Your task to perform on an android device: open app "Etsy: Buy & Sell Unique Items" (install if not already installed) Image 0: 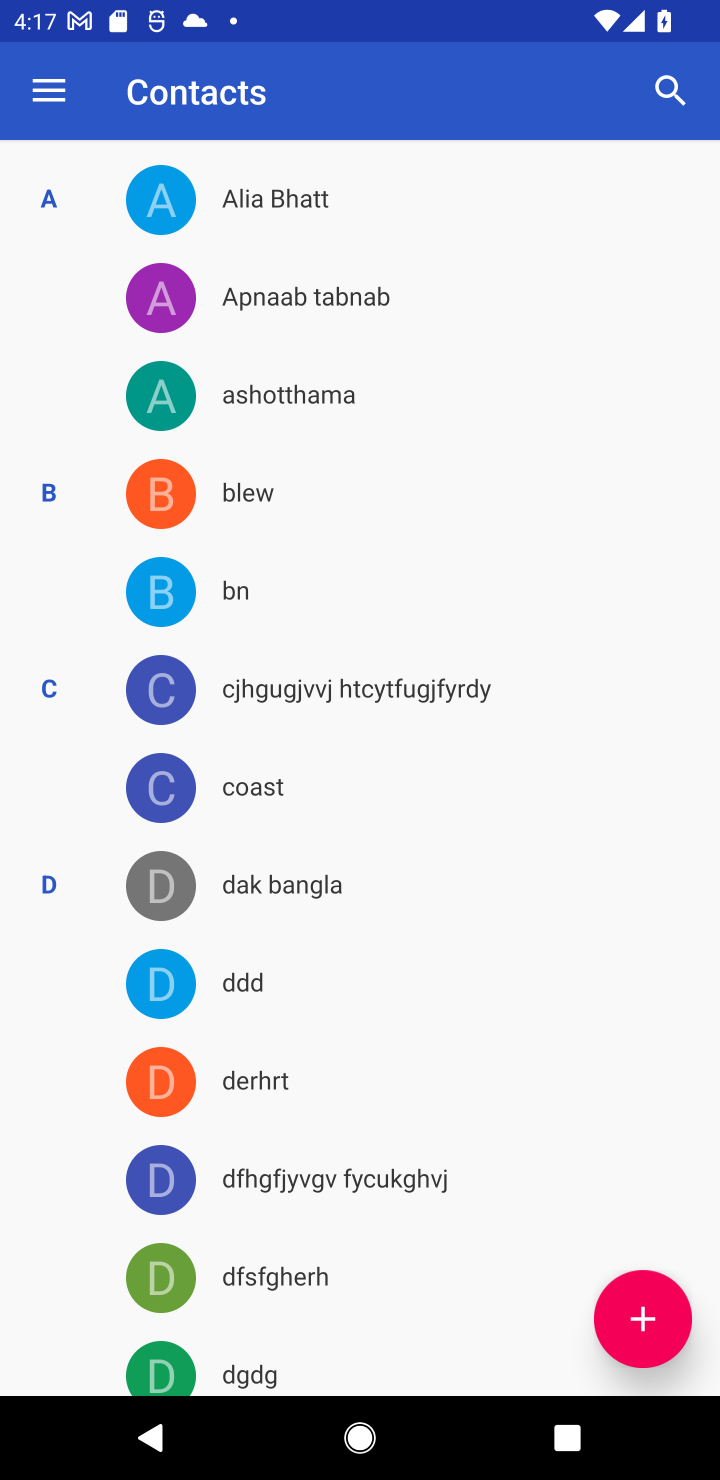
Step 0: press home button
Your task to perform on an android device: open app "Etsy: Buy & Sell Unique Items" (install if not already installed) Image 1: 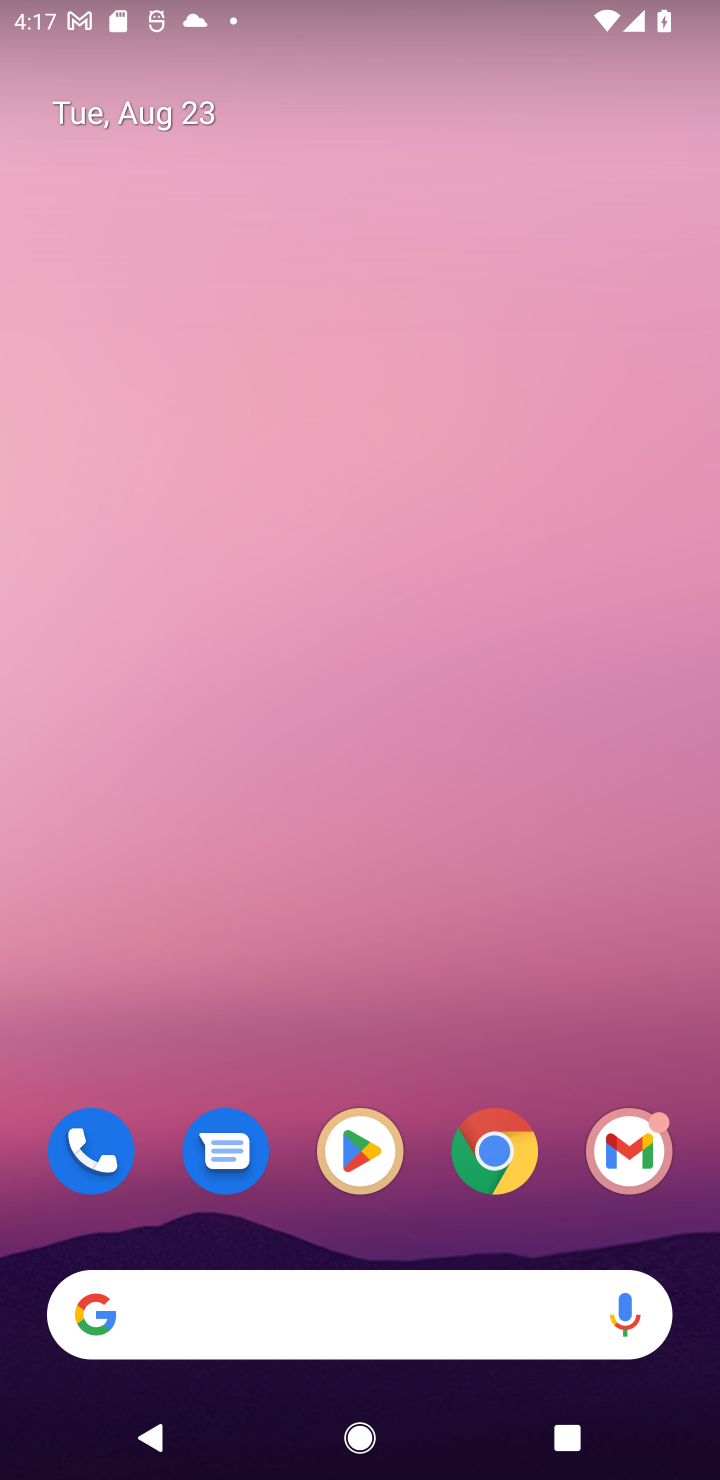
Step 1: click (348, 1157)
Your task to perform on an android device: open app "Etsy: Buy & Sell Unique Items" (install if not already installed) Image 2: 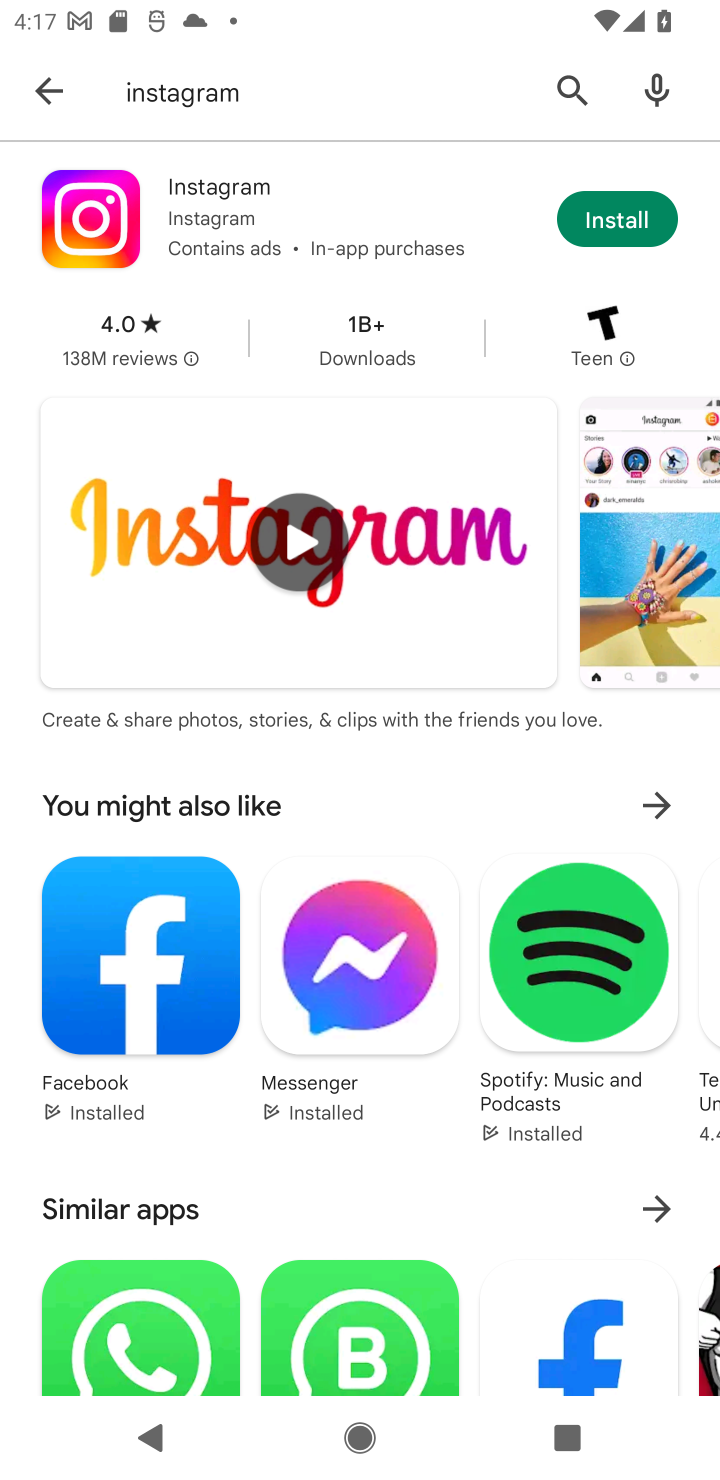
Step 2: click (561, 82)
Your task to perform on an android device: open app "Etsy: Buy & Sell Unique Items" (install if not already installed) Image 3: 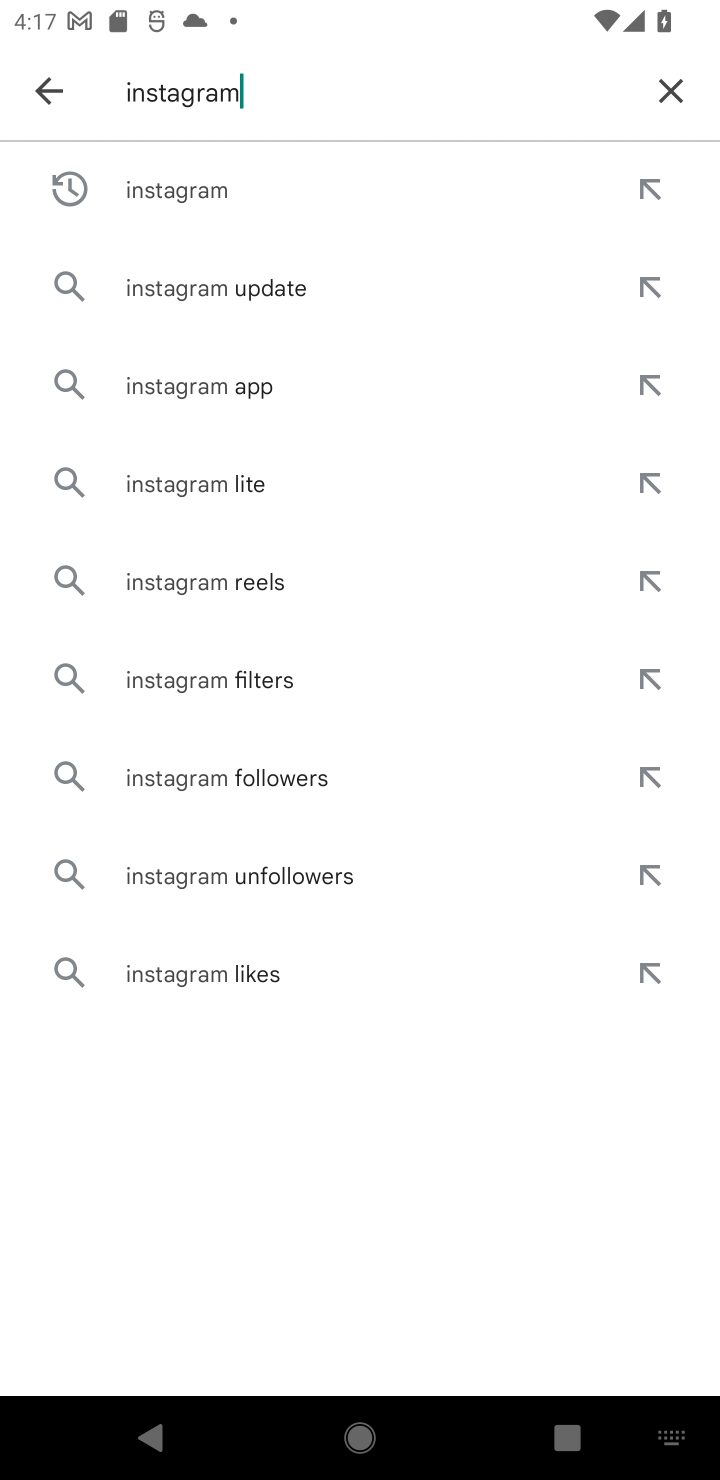
Step 3: click (668, 89)
Your task to perform on an android device: open app "Etsy: Buy & Sell Unique Items" (install if not already installed) Image 4: 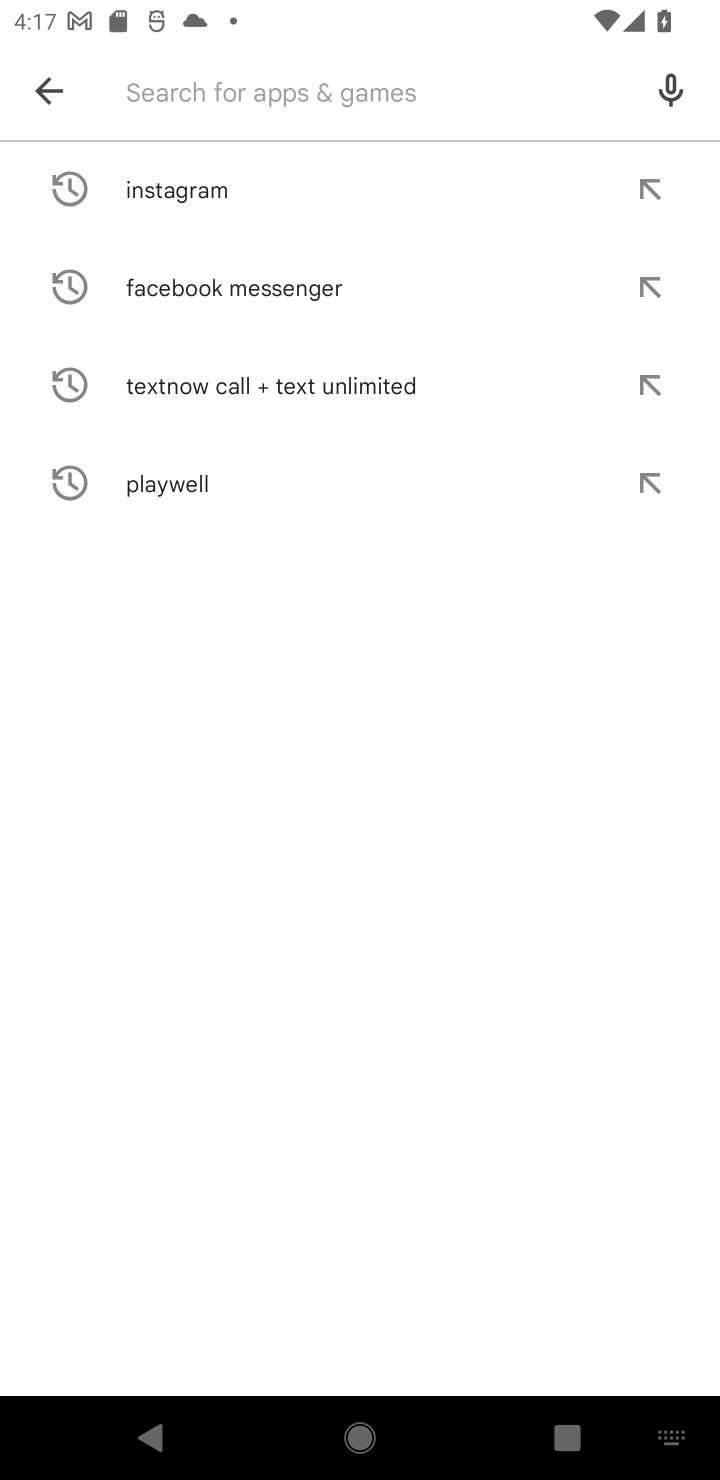
Step 4: type "Etsy: Buy & Sell Unique Items"
Your task to perform on an android device: open app "Etsy: Buy & Sell Unique Items" (install if not already installed) Image 5: 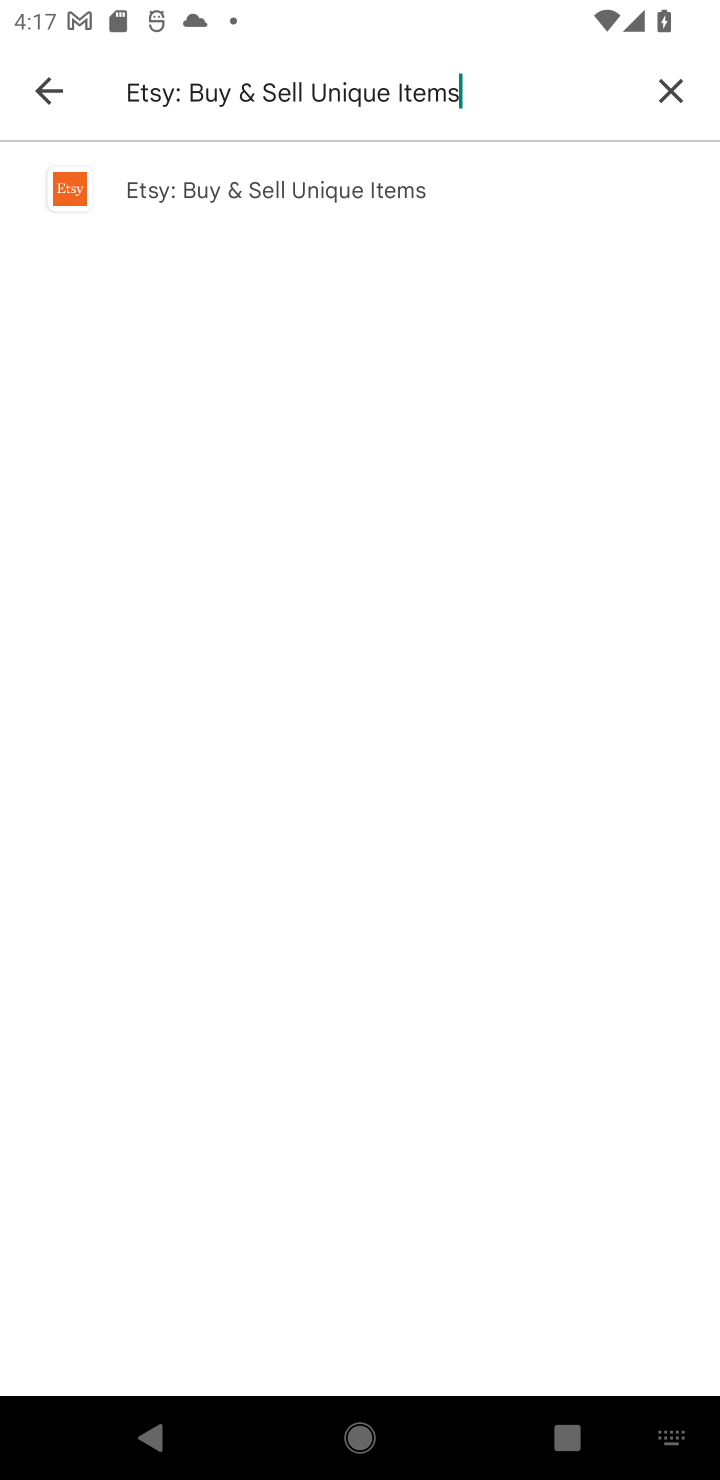
Step 5: click (378, 196)
Your task to perform on an android device: open app "Etsy: Buy & Sell Unique Items" (install if not already installed) Image 6: 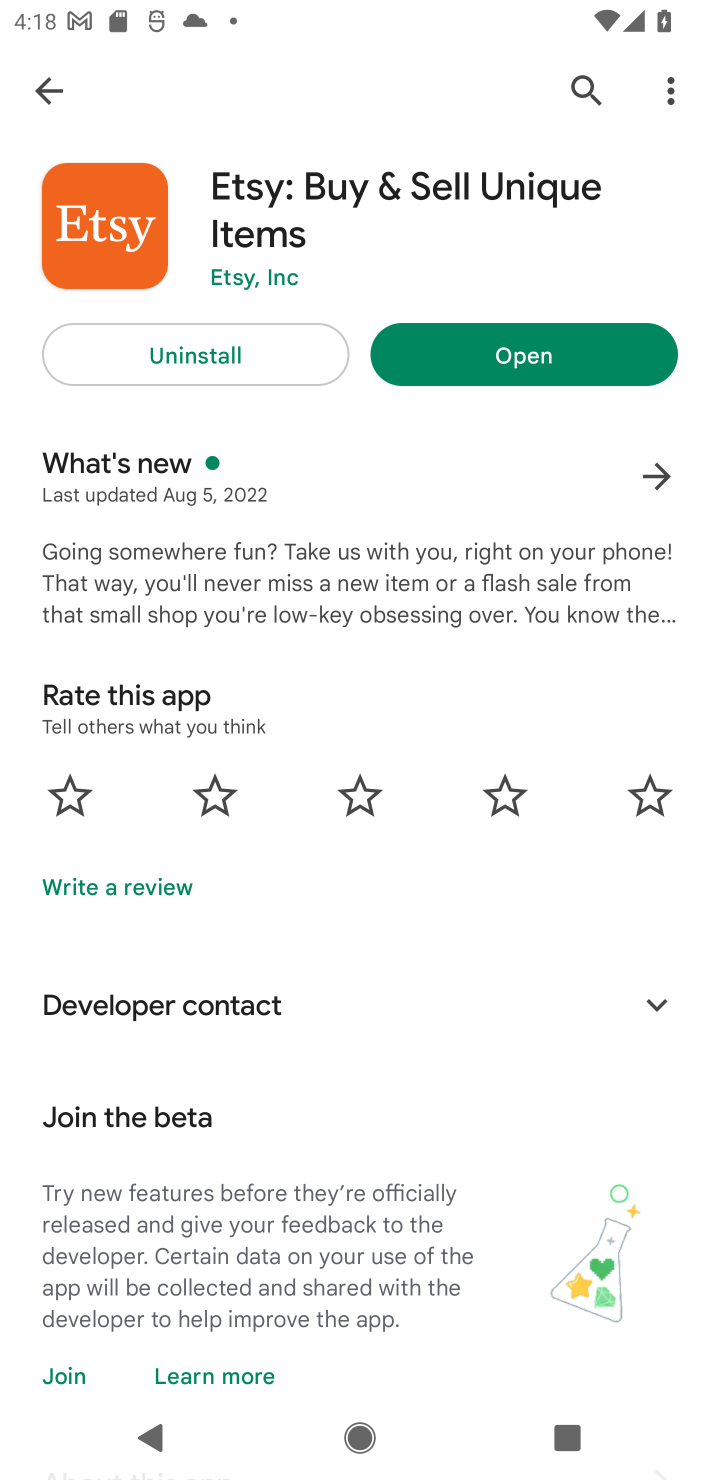
Step 6: click (495, 354)
Your task to perform on an android device: open app "Etsy: Buy & Sell Unique Items" (install if not already installed) Image 7: 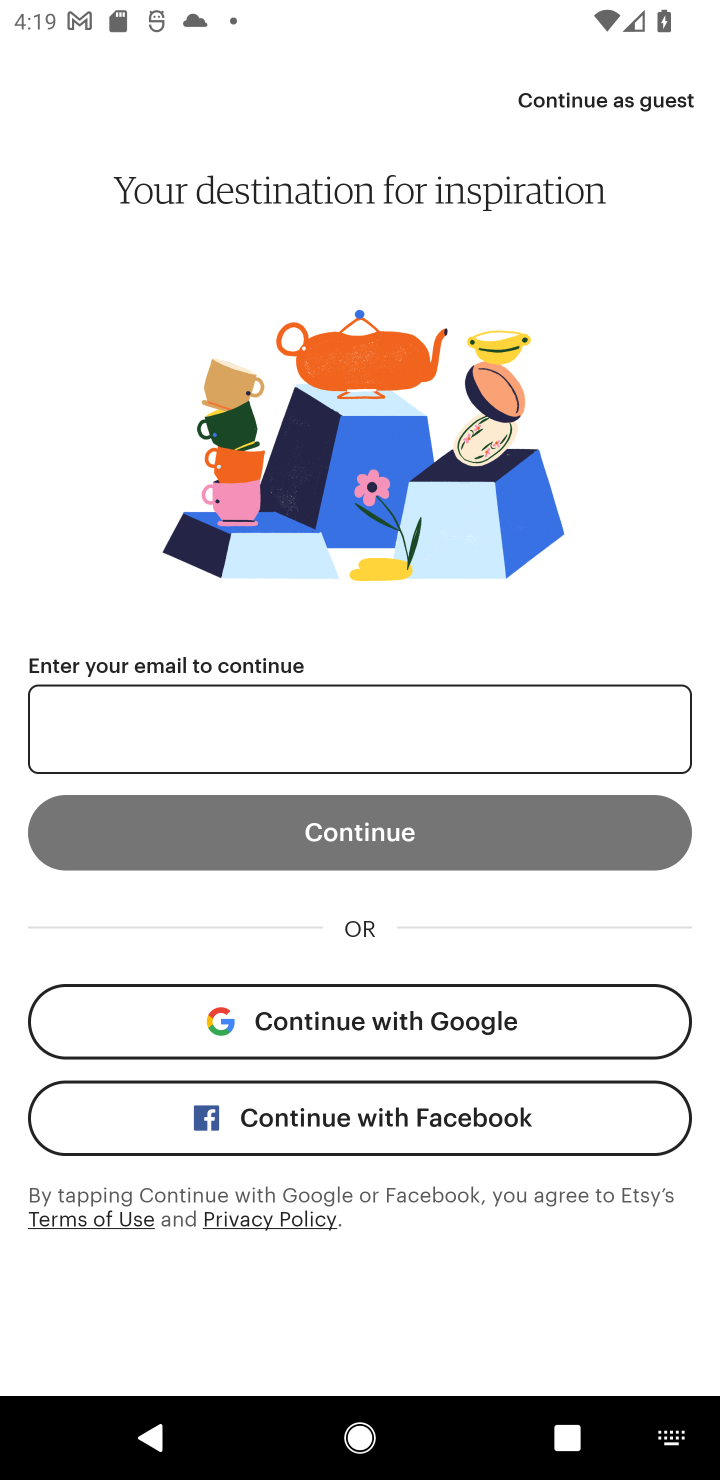
Step 7: task complete